Your task to perform on an android device: Open my contact list Image 0: 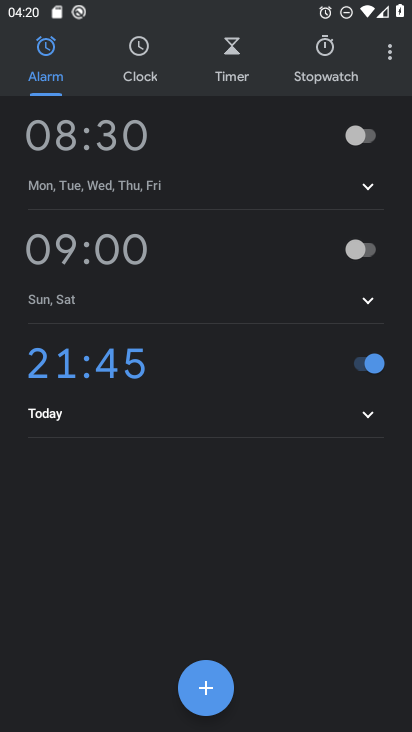
Step 0: press back button
Your task to perform on an android device: Open my contact list Image 1: 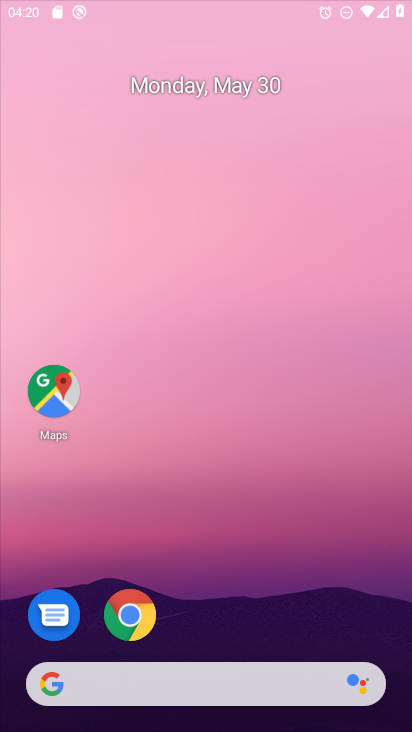
Step 1: press back button
Your task to perform on an android device: Open my contact list Image 2: 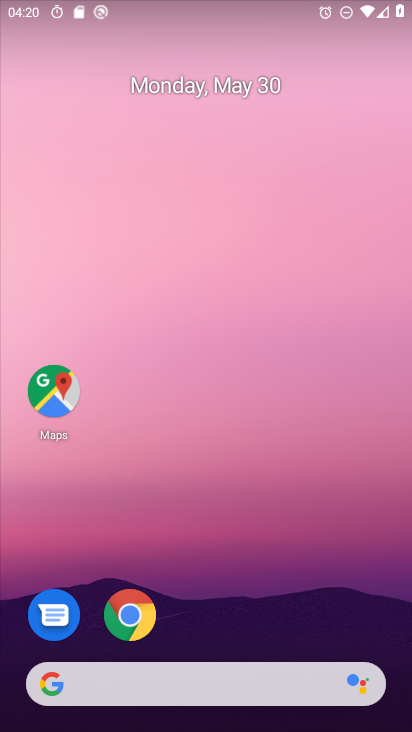
Step 2: drag from (242, 598) to (199, 85)
Your task to perform on an android device: Open my contact list Image 3: 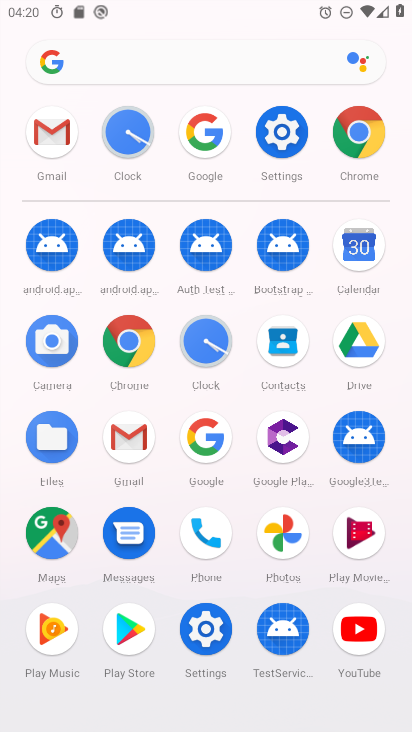
Step 3: click (284, 342)
Your task to perform on an android device: Open my contact list Image 4: 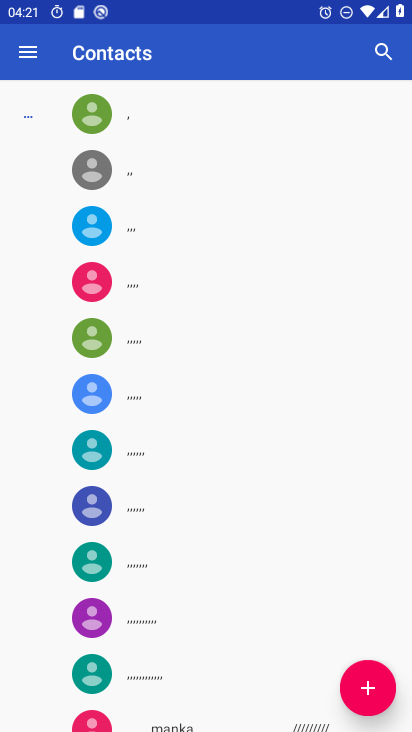
Step 4: task complete